Your task to perform on an android device: stop showing notifications on the lock screen Image 0: 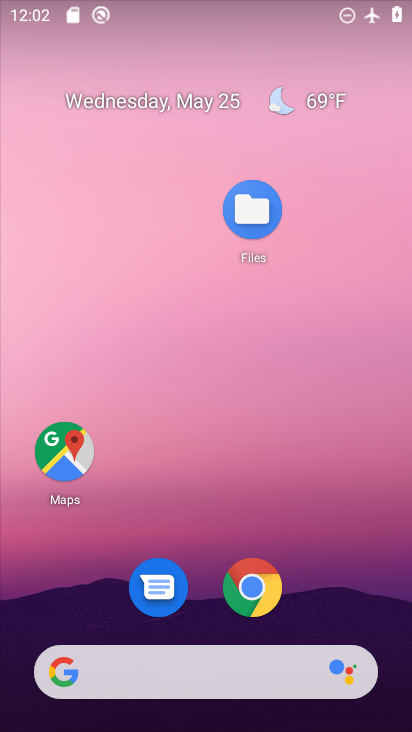
Step 0: drag from (325, 606) to (45, 144)
Your task to perform on an android device: stop showing notifications on the lock screen Image 1: 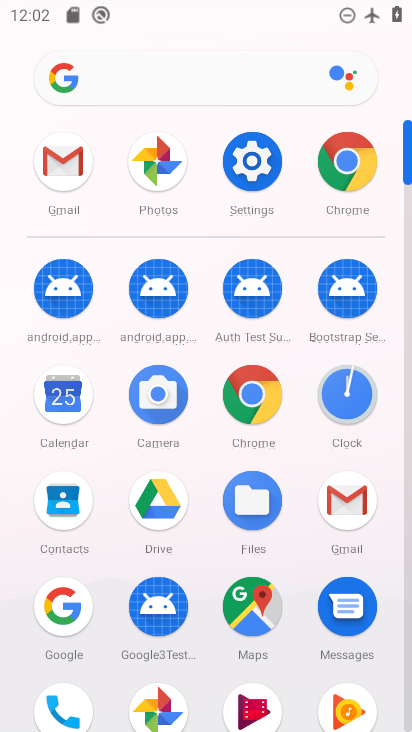
Step 1: click (247, 161)
Your task to perform on an android device: stop showing notifications on the lock screen Image 2: 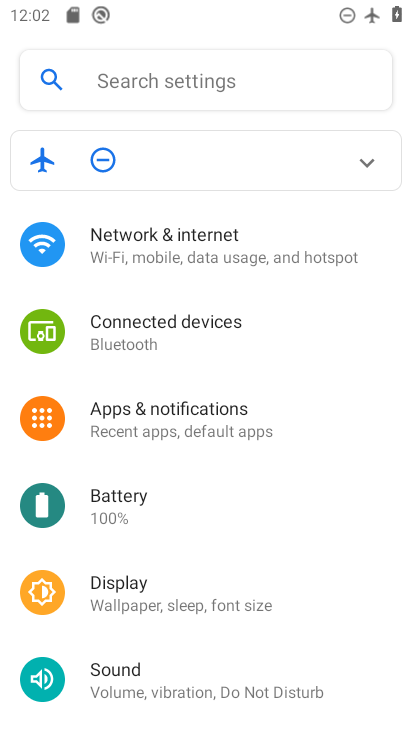
Step 2: click (150, 430)
Your task to perform on an android device: stop showing notifications on the lock screen Image 3: 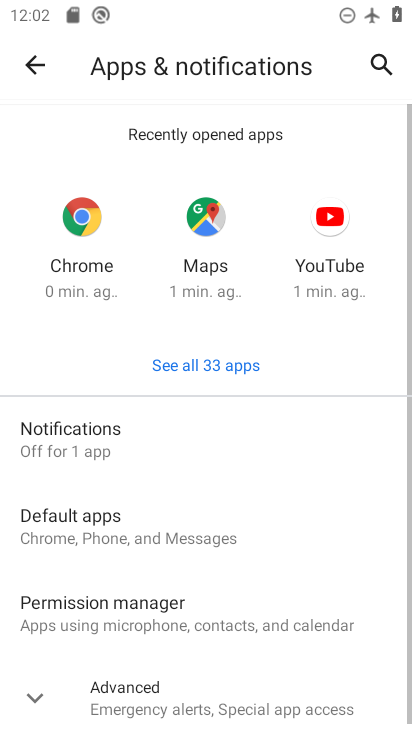
Step 3: click (119, 446)
Your task to perform on an android device: stop showing notifications on the lock screen Image 4: 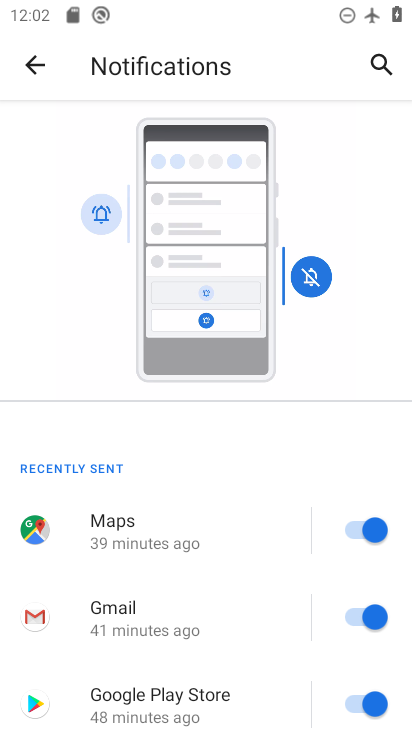
Step 4: drag from (160, 667) to (146, 315)
Your task to perform on an android device: stop showing notifications on the lock screen Image 5: 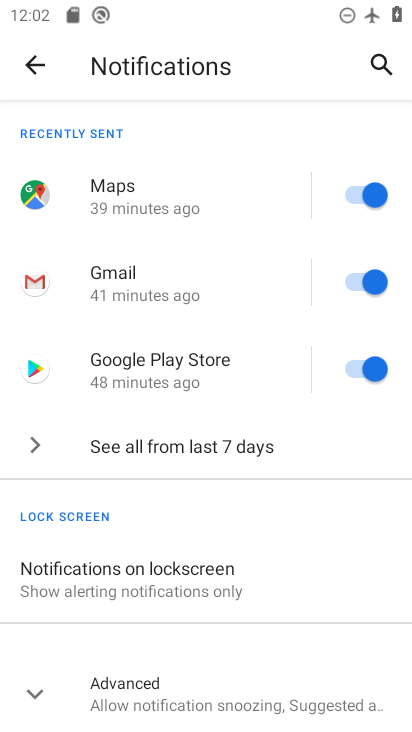
Step 5: click (123, 596)
Your task to perform on an android device: stop showing notifications on the lock screen Image 6: 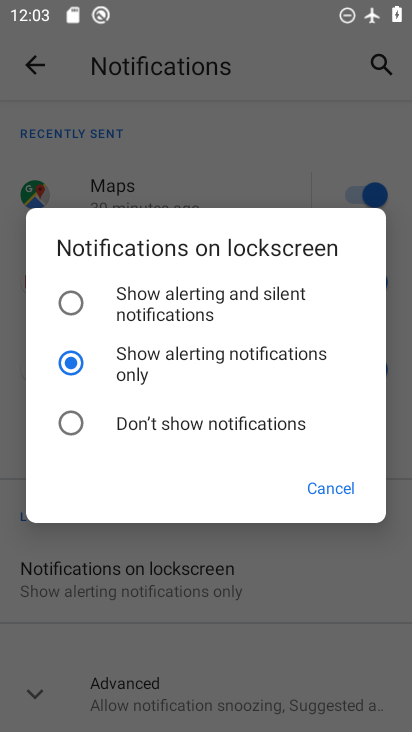
Step 6: click (171, 422)
Your task to perform on an android device: stop showing notifications on the lock screen Image 7: 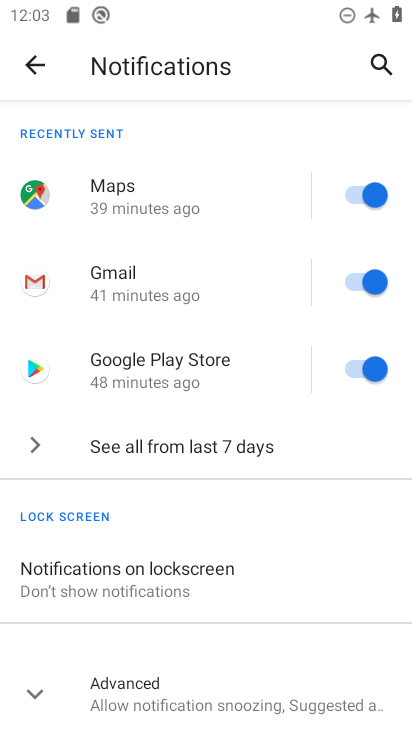
Step 7: task complete